Your task to perform on an android device: find which apps use the phone's location Image 0: 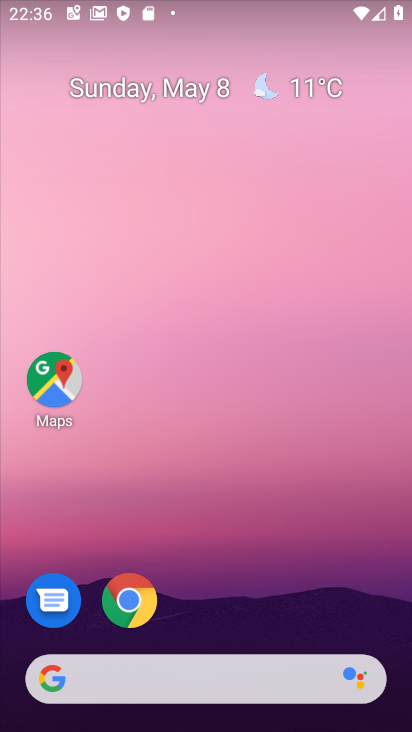
Step 0: drag from (206, 628) to (290, 171)
Your task to perform on an android device: find which apps use the phone's location Image 1: 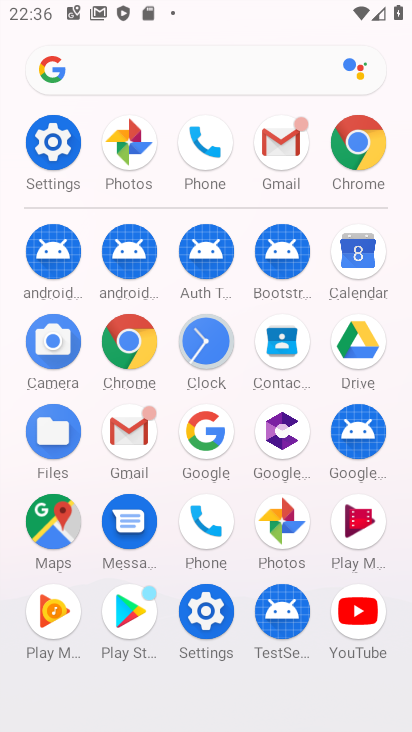
Step 1: click (49, 147)
Your task to perform on an android device: find which apps use the phone's location Image 2: 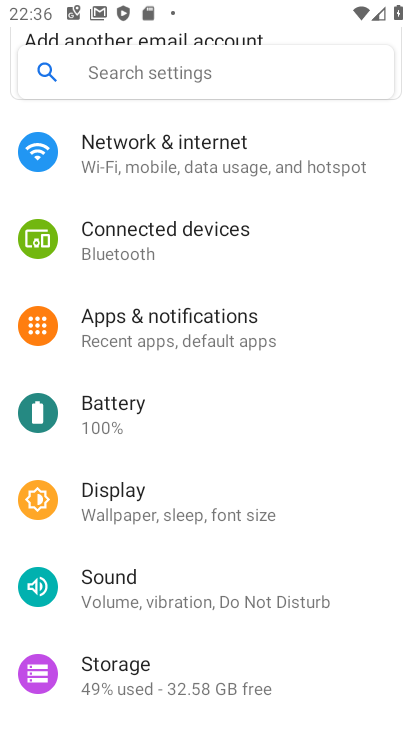
Step 2: drag from (176, 565) to (241, 230)
Your task to perform on an android device: find which apps use the phone's location Image 3: 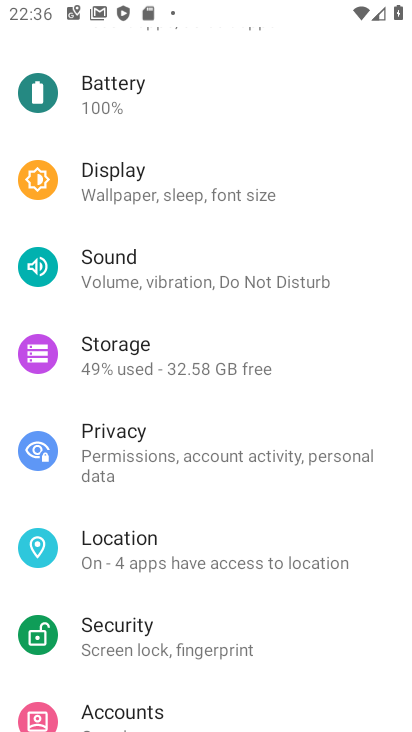
Step 3: click (145, 557)
Your task to perform on an android device: find which apps use the phone's location Image 4: 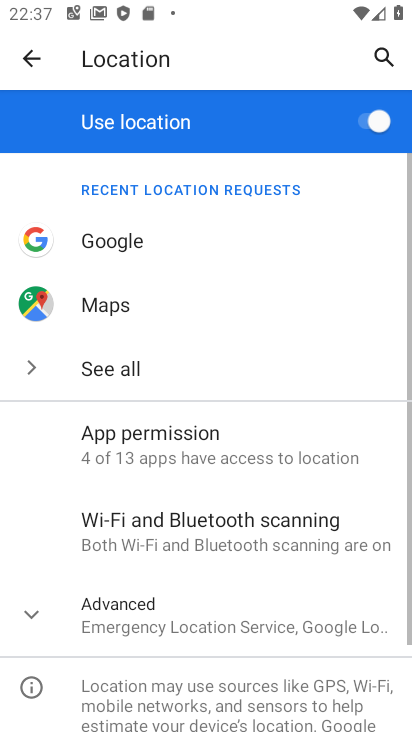
Step 4: click (106, 376)
Your task to perform on an android device: find which apps use the phone's location Image 5: 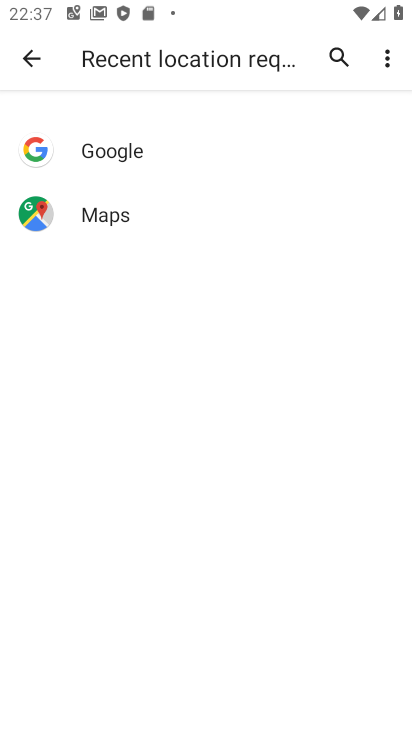
Step 5: task complete